Your task to perform on an android device: Go to Reddit.com Image 0: 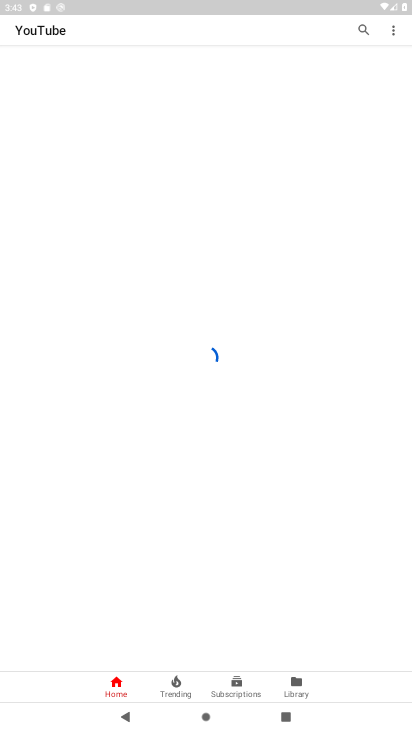
Step 0: press home button
Your task to perform on an android device: Go to Reddit.com Image 1: 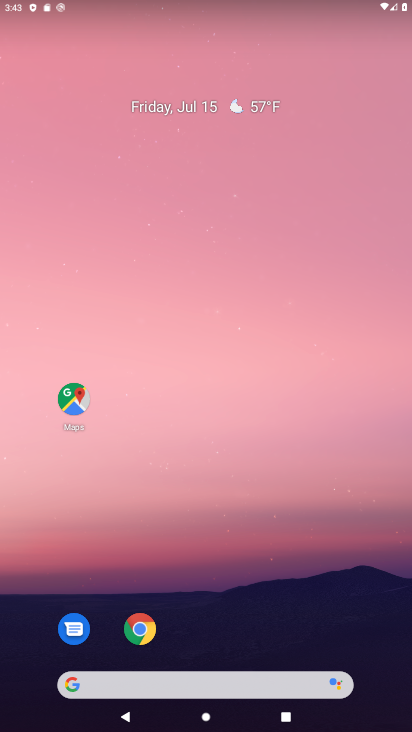
Step 1: click (73, 683)
Your task to perform on an android device: Go to Reddit.com Image 2: 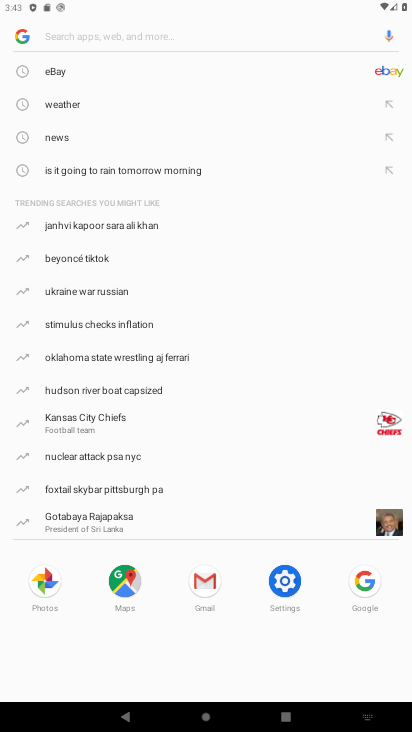
Step 2: type " Reddit.com"
Your task to perform on an android device: Go to Reddit.com Image 3: 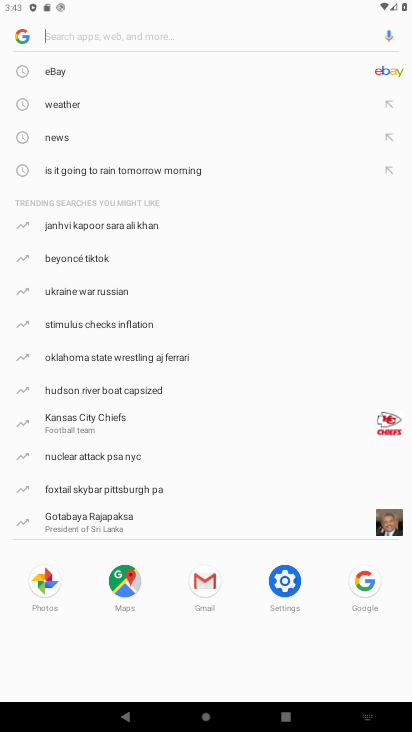
Step 3: click (63, 30)
Your task to perform on an android device: Go to Reddit.com Image 4: 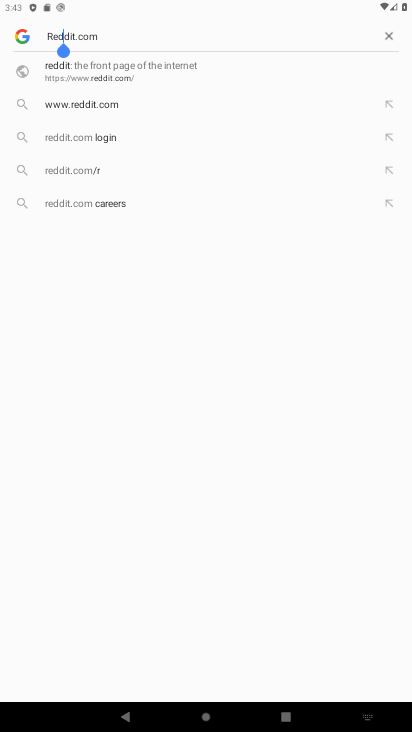
Step 4: click (85, 97)
Your task to perform on an android device: Go to Reddit.com Image 5: 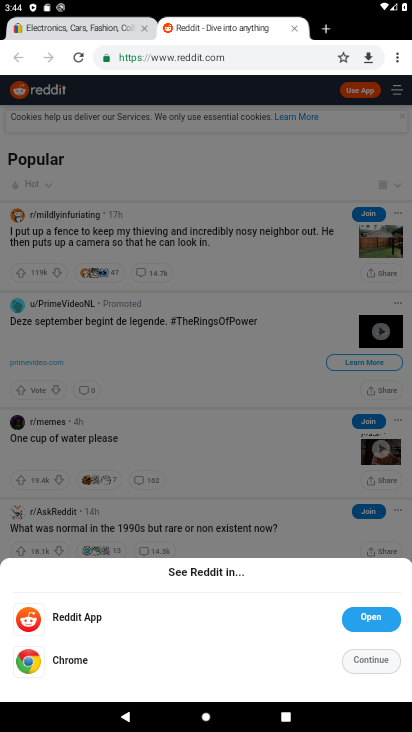
Step 5: task complete